Your task to perform on an android device: Go to Android settings Image 0: 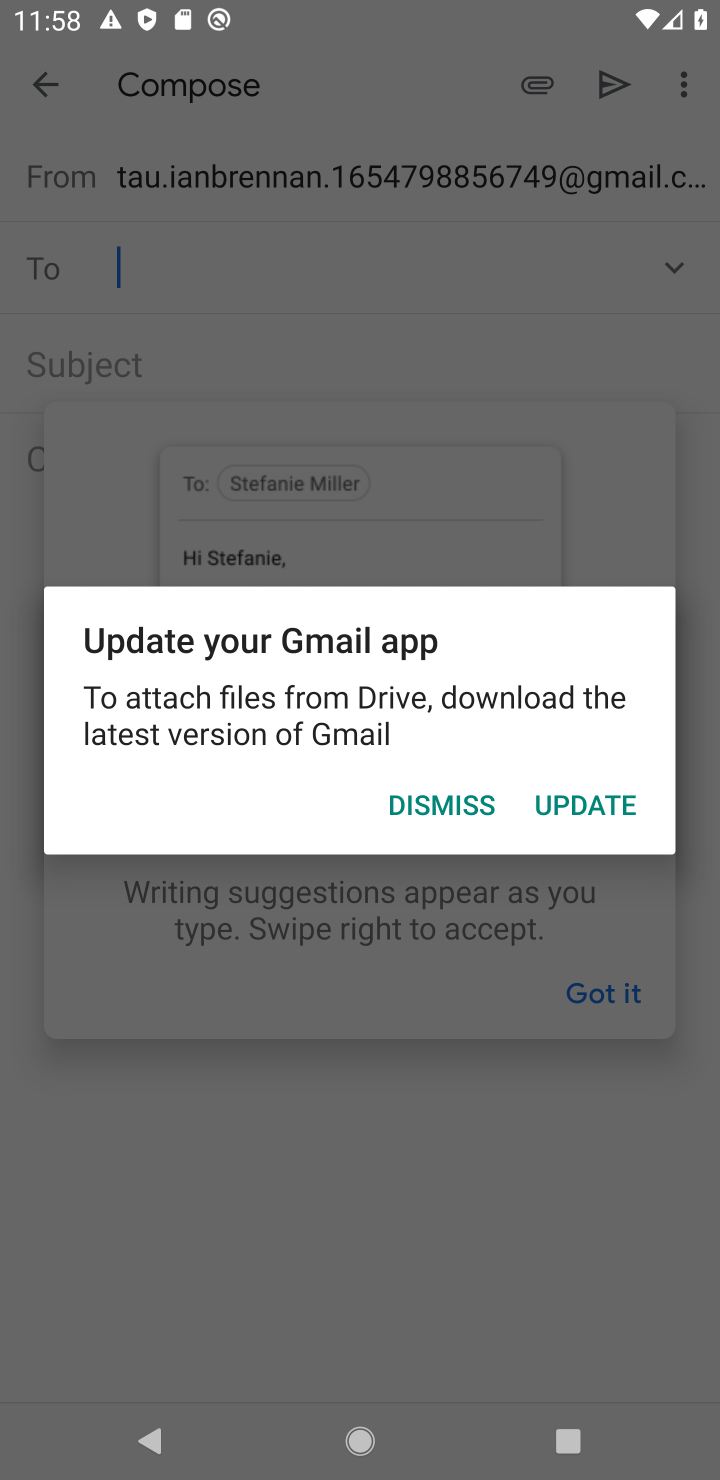
Step 0: press home button
Your task to perform on an android device: Go to Android settings Image 1: 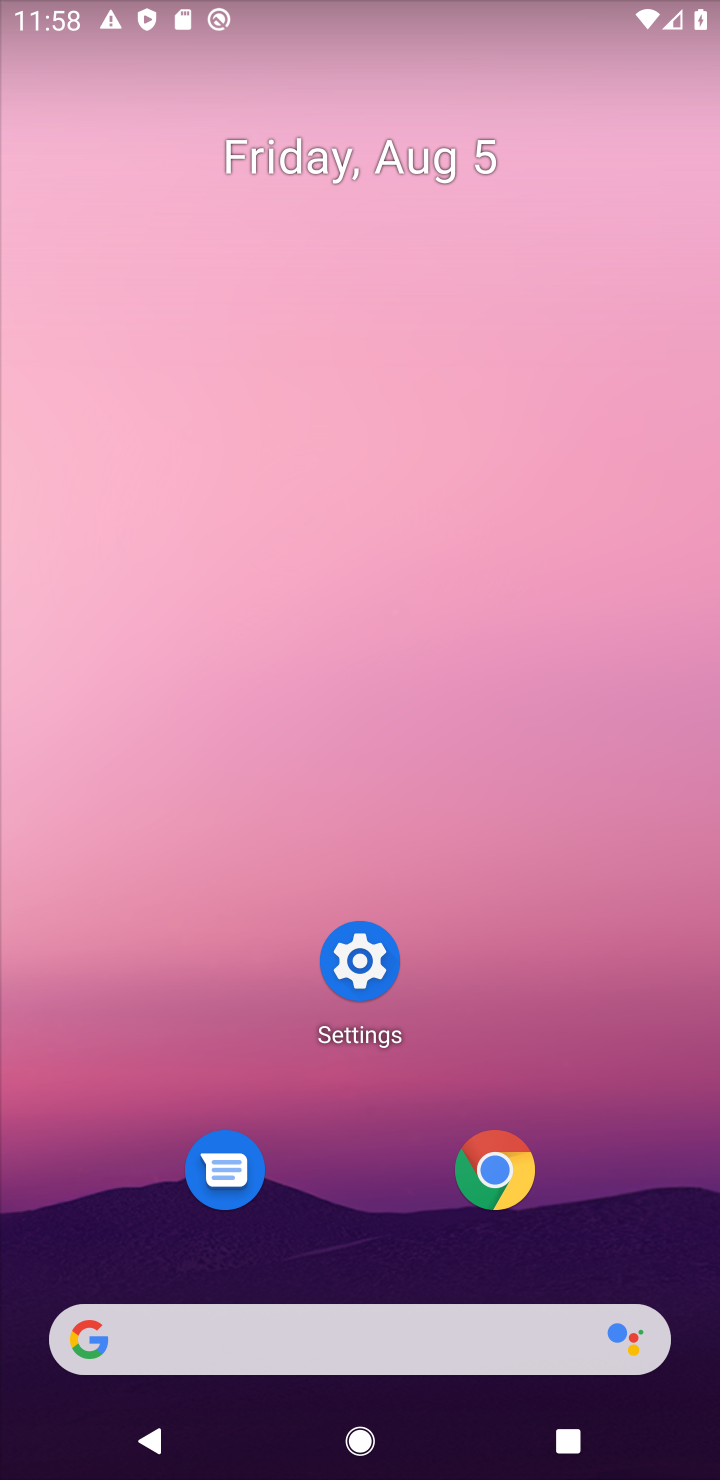
Step 1: click (349, 963)
Your task to perform on an android device: Go to Android settings Image 2: 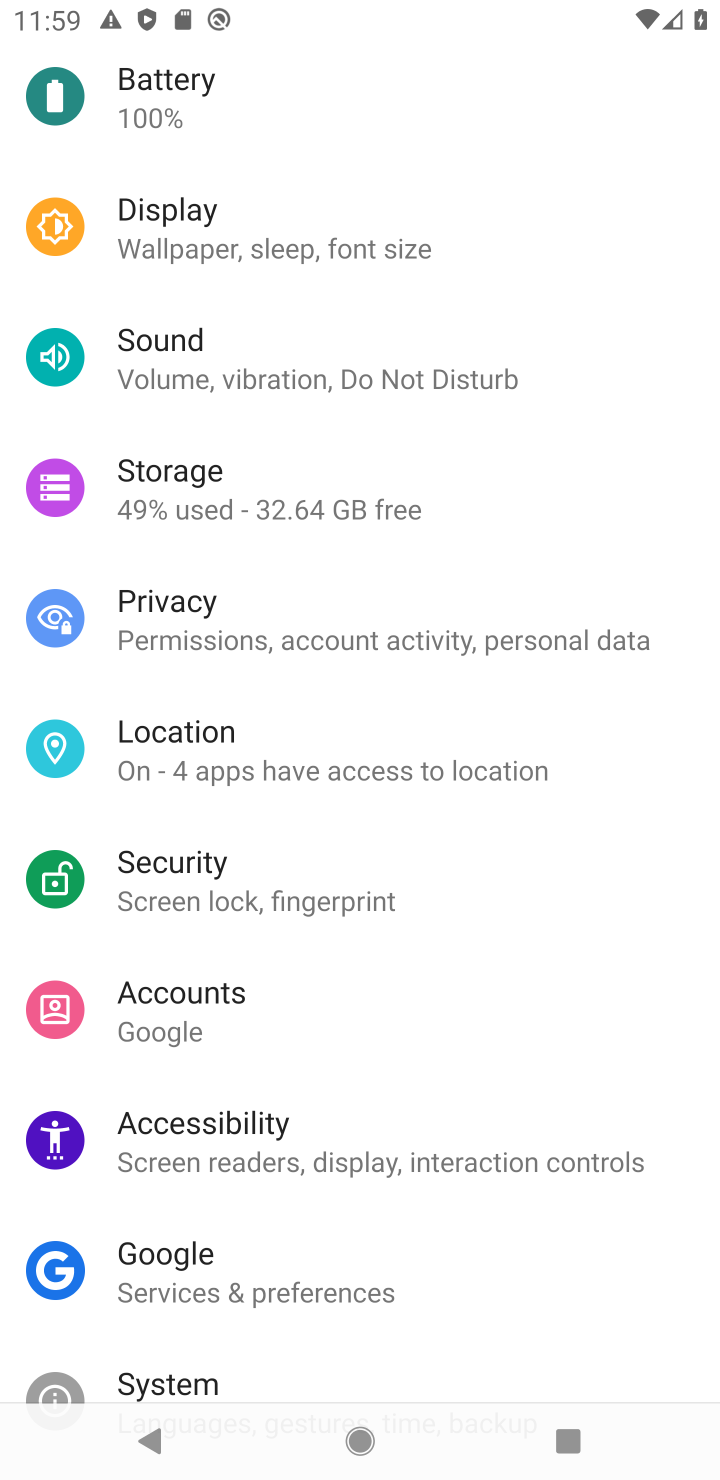
Step 2: drag from (606, 1301) to (514, 95)
Your task to perform on an android device: Go to Android settings Image 3: 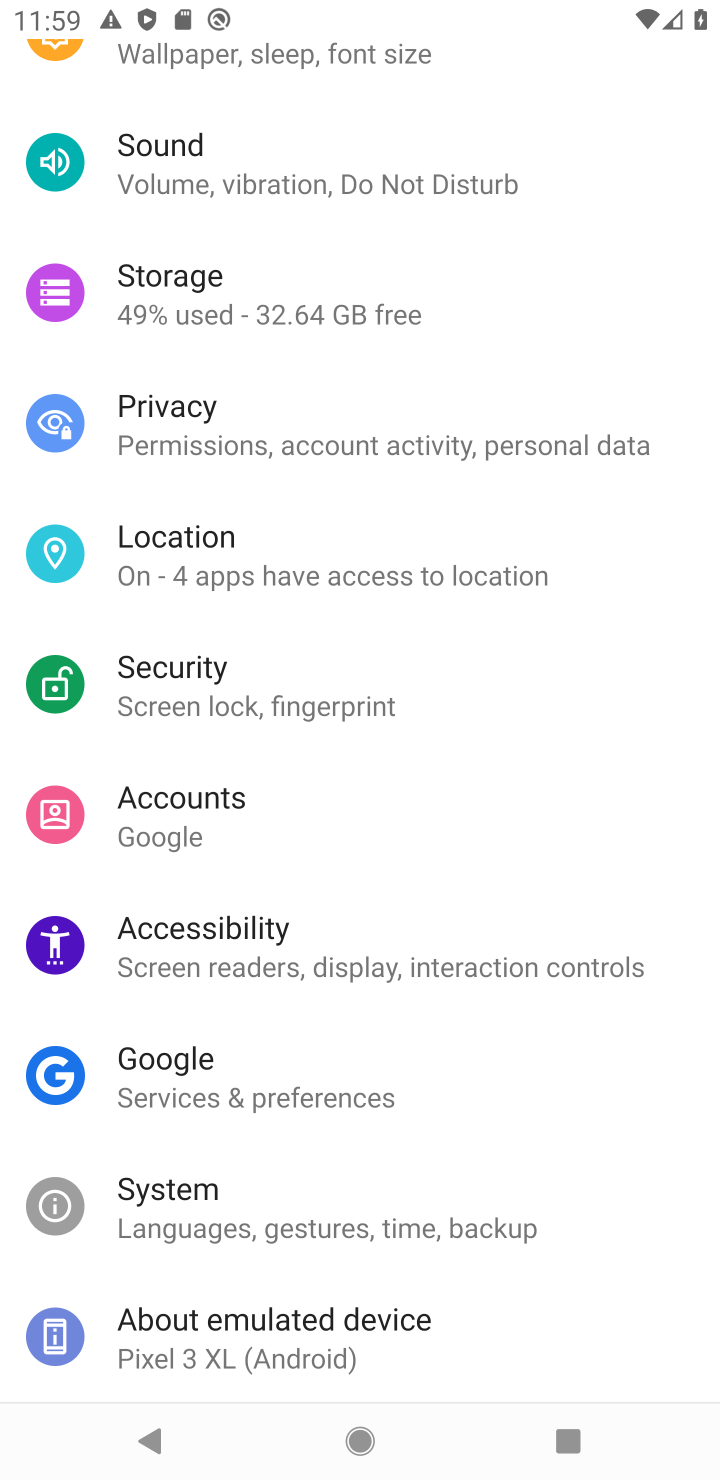
Step 3: click (268, 1354)
Your task to perform on an android device: Go to Android settings Image 4: 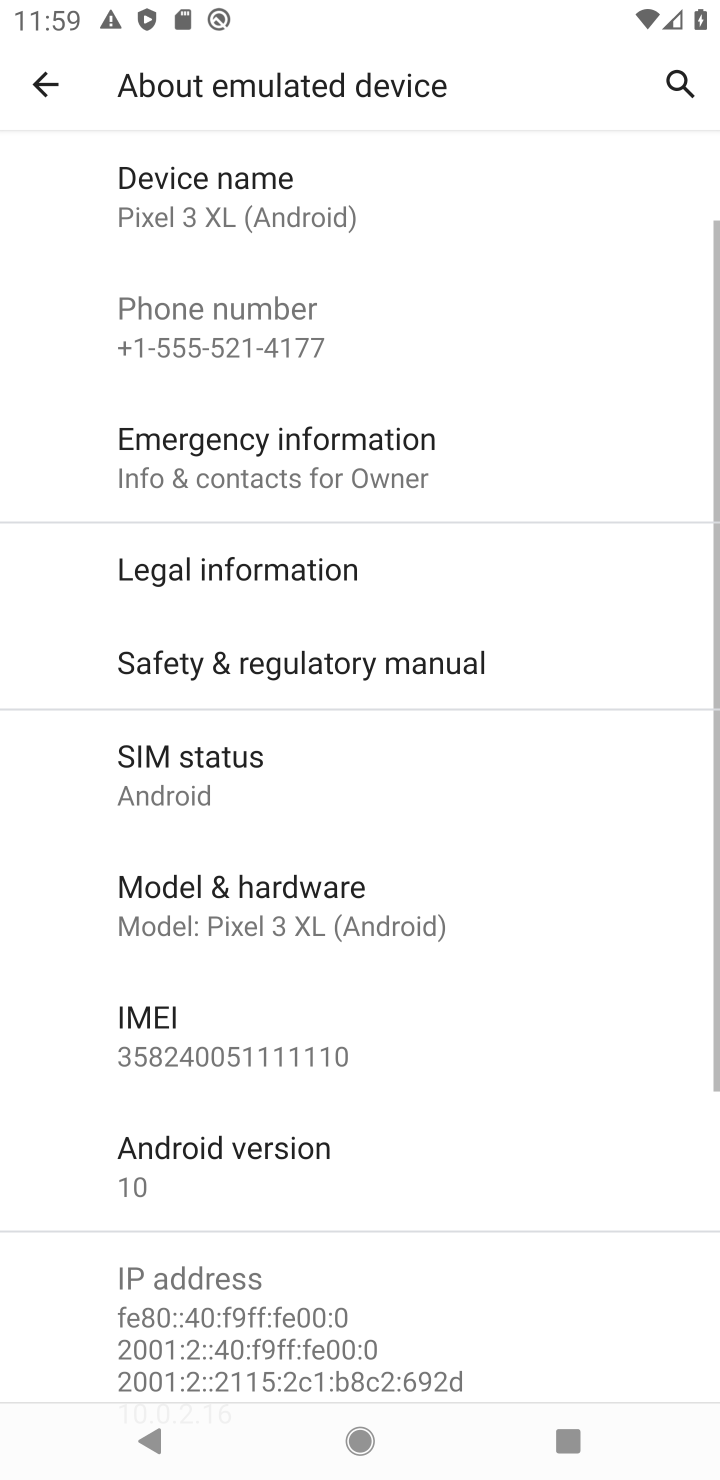
Step 4: click (201, 1152)
Your task to perform on an android device: Go to Android settings Image 5: 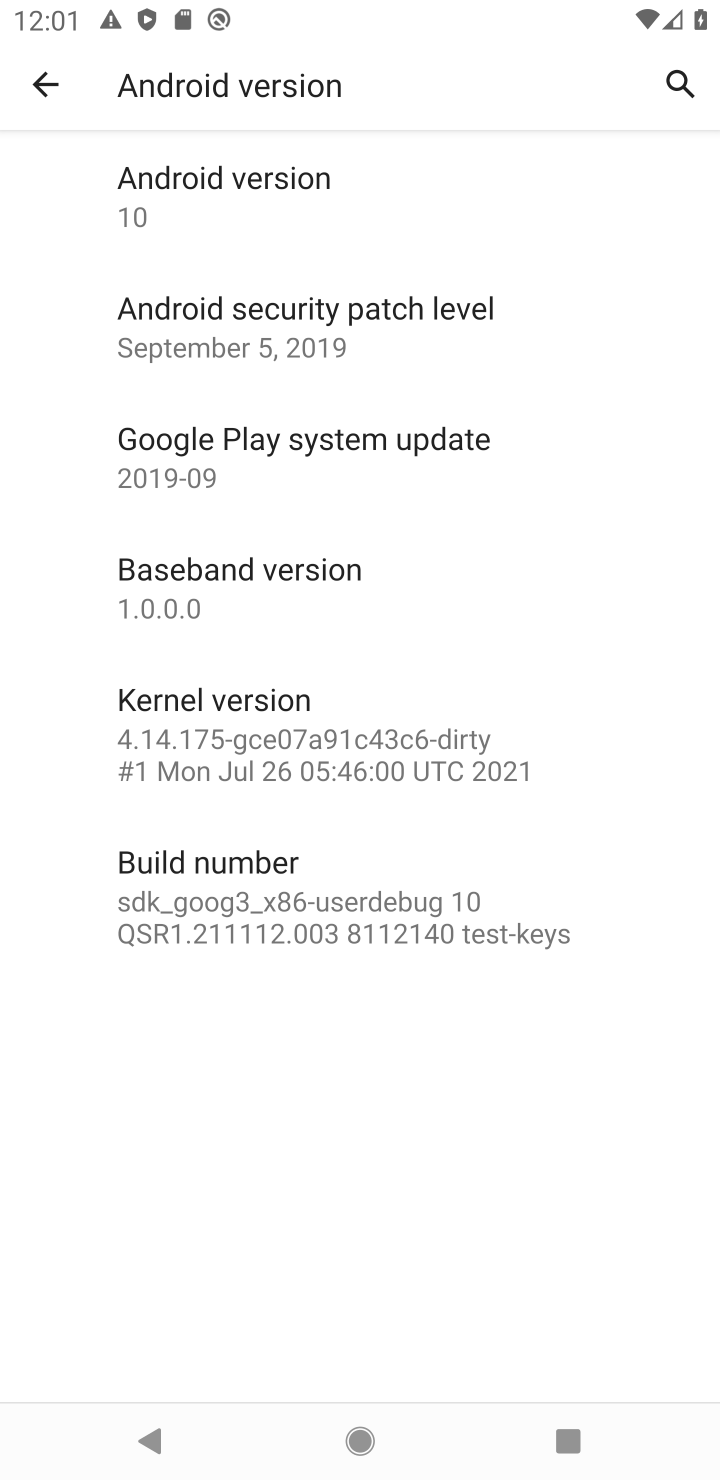
Step 5: task complete